Your task to perform on an android device: Is it going to rain this weekend? Image 0: 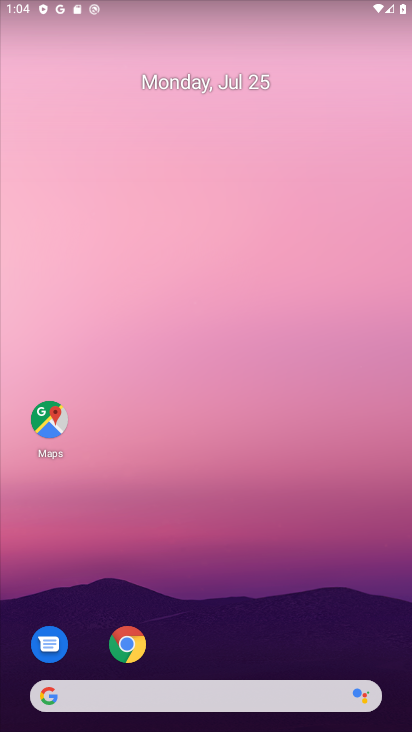
Step 0: click (169, 703)
Your task to perform on an android device: Is it going to rain this weekend? Image 1: 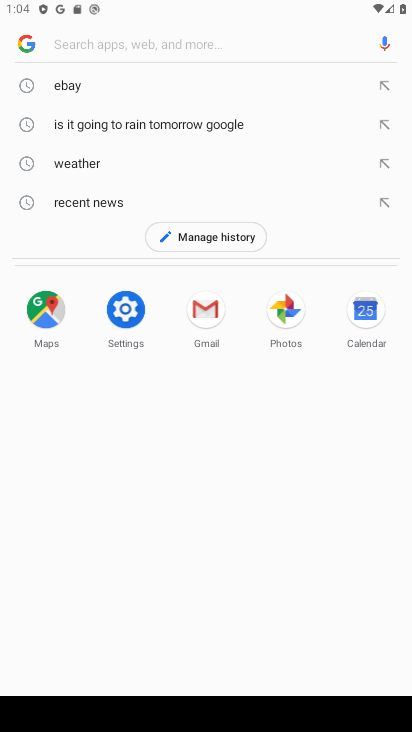
Step 1: type "is it going to rain this weekend"
Your task to perform on an android device: Is it going to rain this weekend? Image 2: 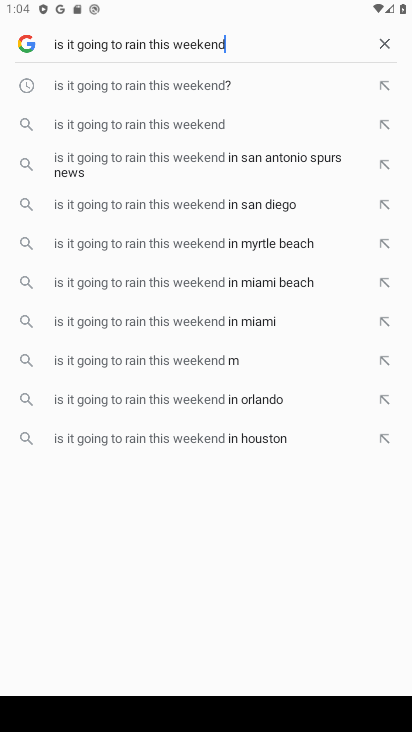
Step 2: click (70, 81)
Your task to perform on an android device: Is it going to rain this weekend? Image 3: 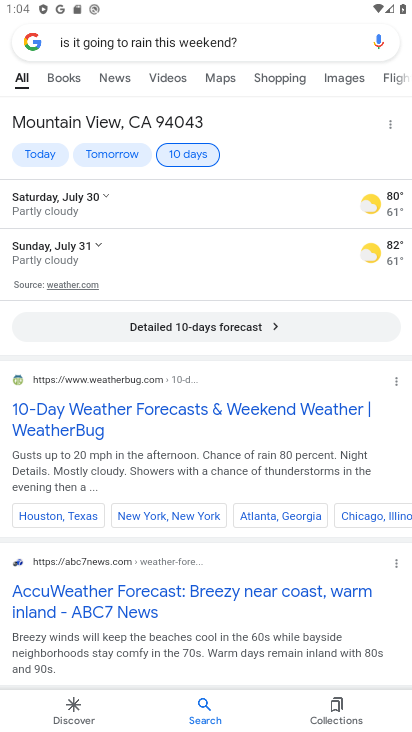
Step 3: task complete